Your task to perform on an android device: Find coffee shops on Maps Image 0: 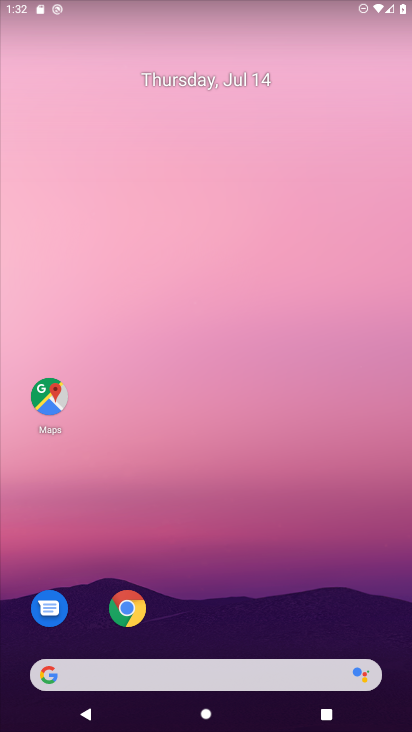
Step 0: drag from (233, 731) to (229, 160)
Your task to perform on an android device: Find coffee shops on Maps Image 1: 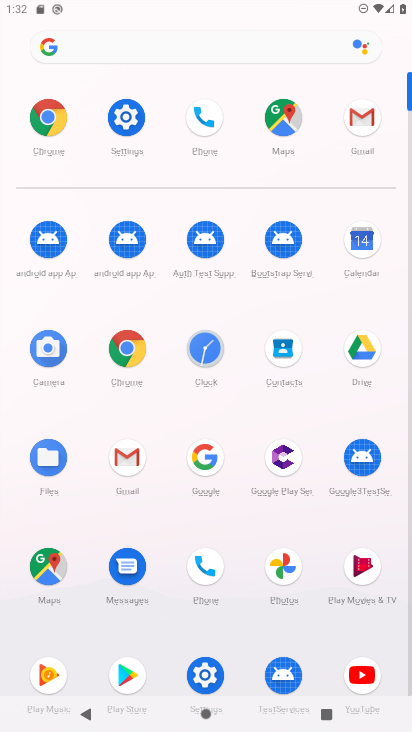
Step 1: click (41, 567)
Your task to perform on an android device: Find coffee shops on Maps Image 2: 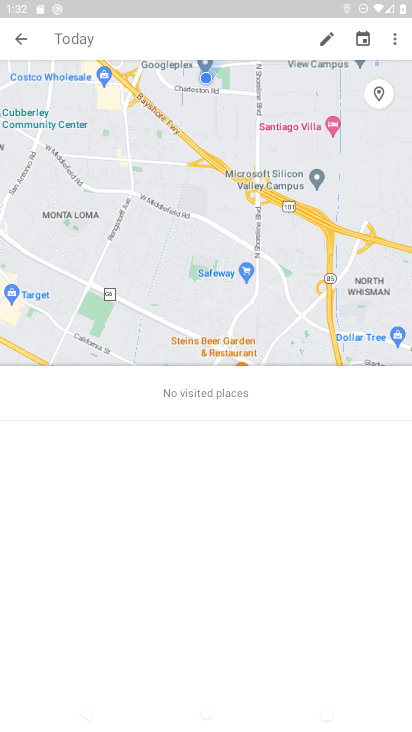
Step 2: click (20, 41)
Your task to perform on an android device: Find coffee shops on Maps Image 3: 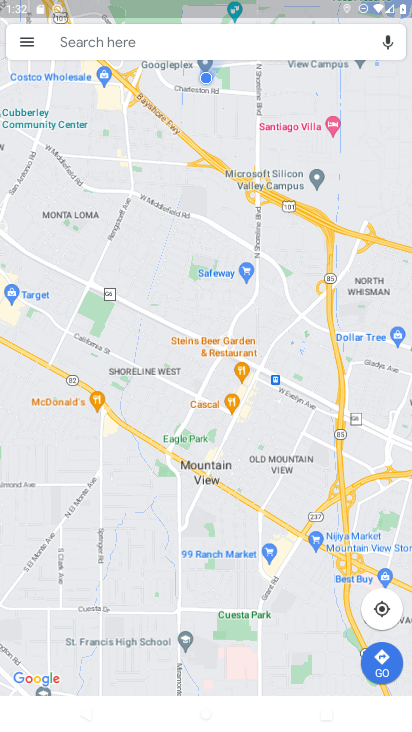
Step 3: click (111, 41)
Your task to perform on an android device: Find coffee shops on Maps Image 4: 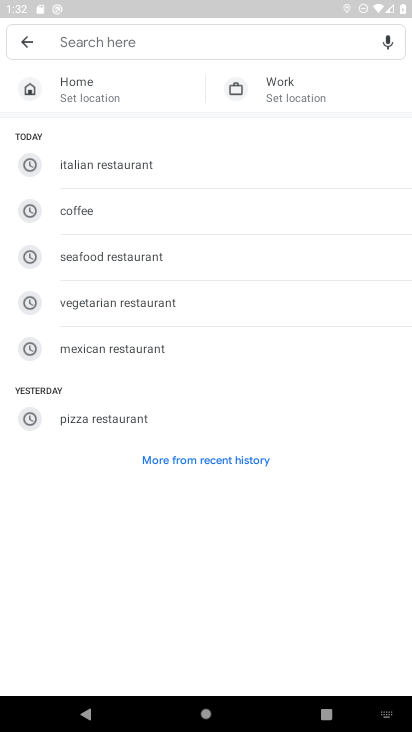
Step 4: type "coffee shops"
Your task to perform on an android device: Find coffee shops on Maps Image 5: 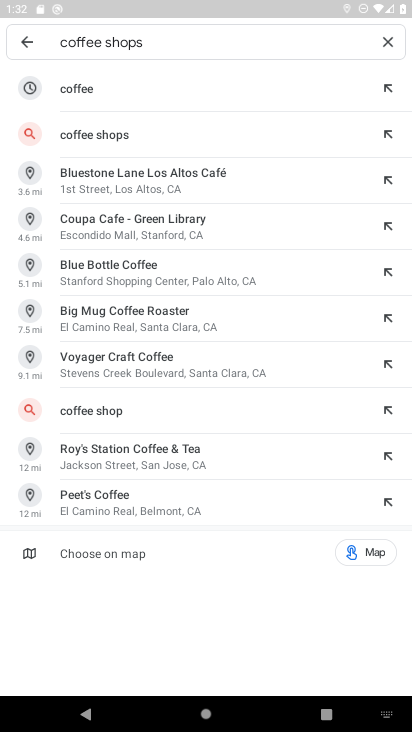
Step 5: click (112, 133)
Your task to perform on an android device: Find coffee shops on Maps Image 6: 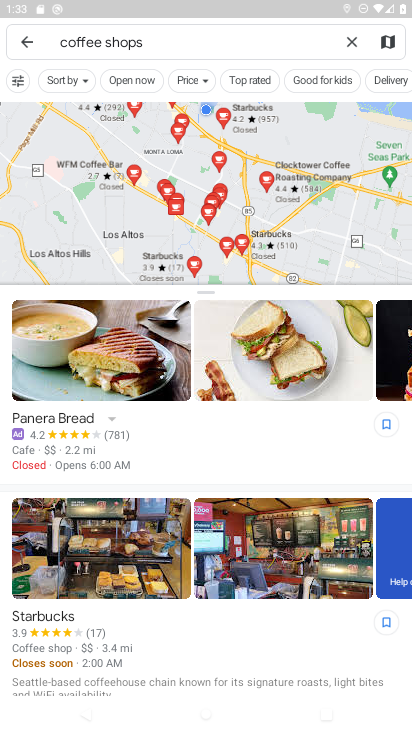
Step 6: task complete